Your task to perform on an android device: turn on translation in the chrome app Image 0: 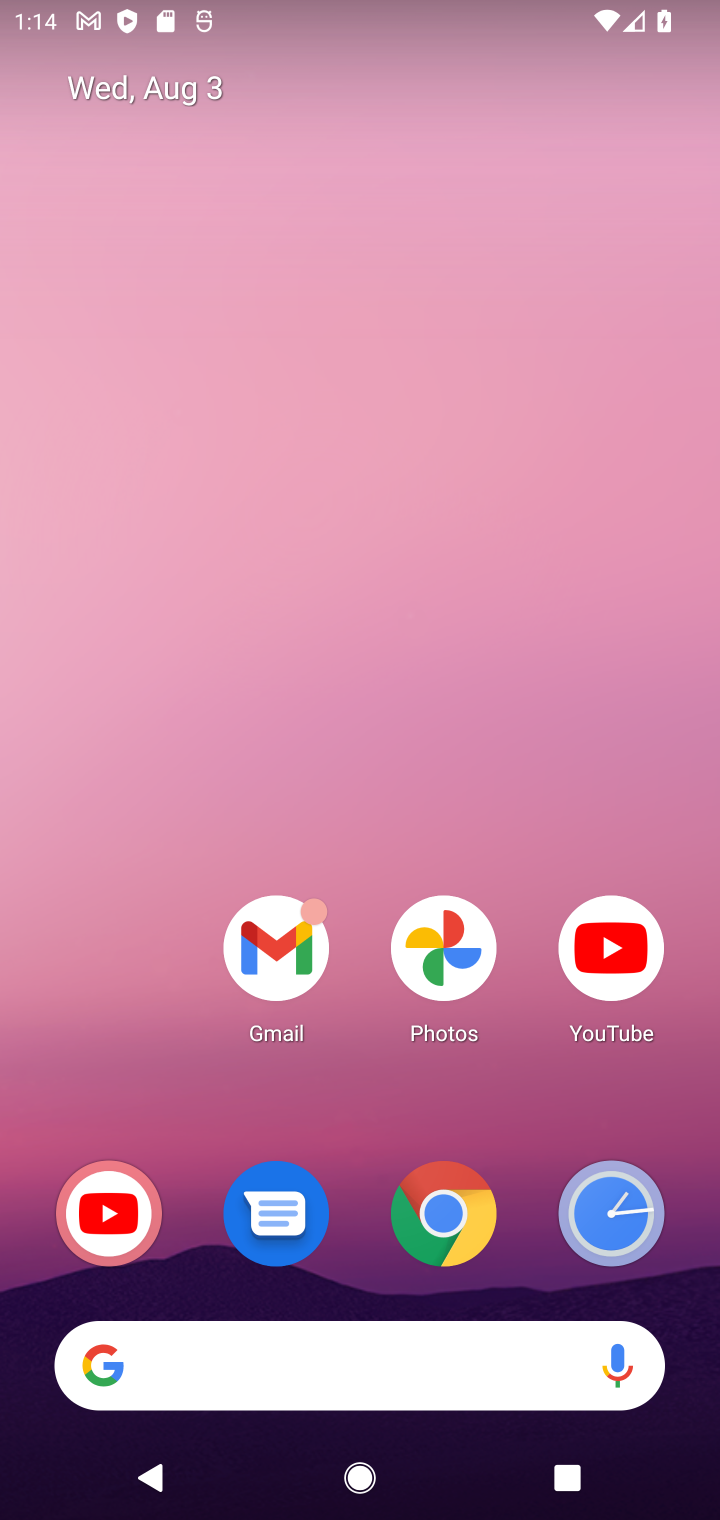
Step 0: drag from (508, 1303) to (718, 860)
Your task to perform on an android device: turn on translation in the chrome app Image 1: 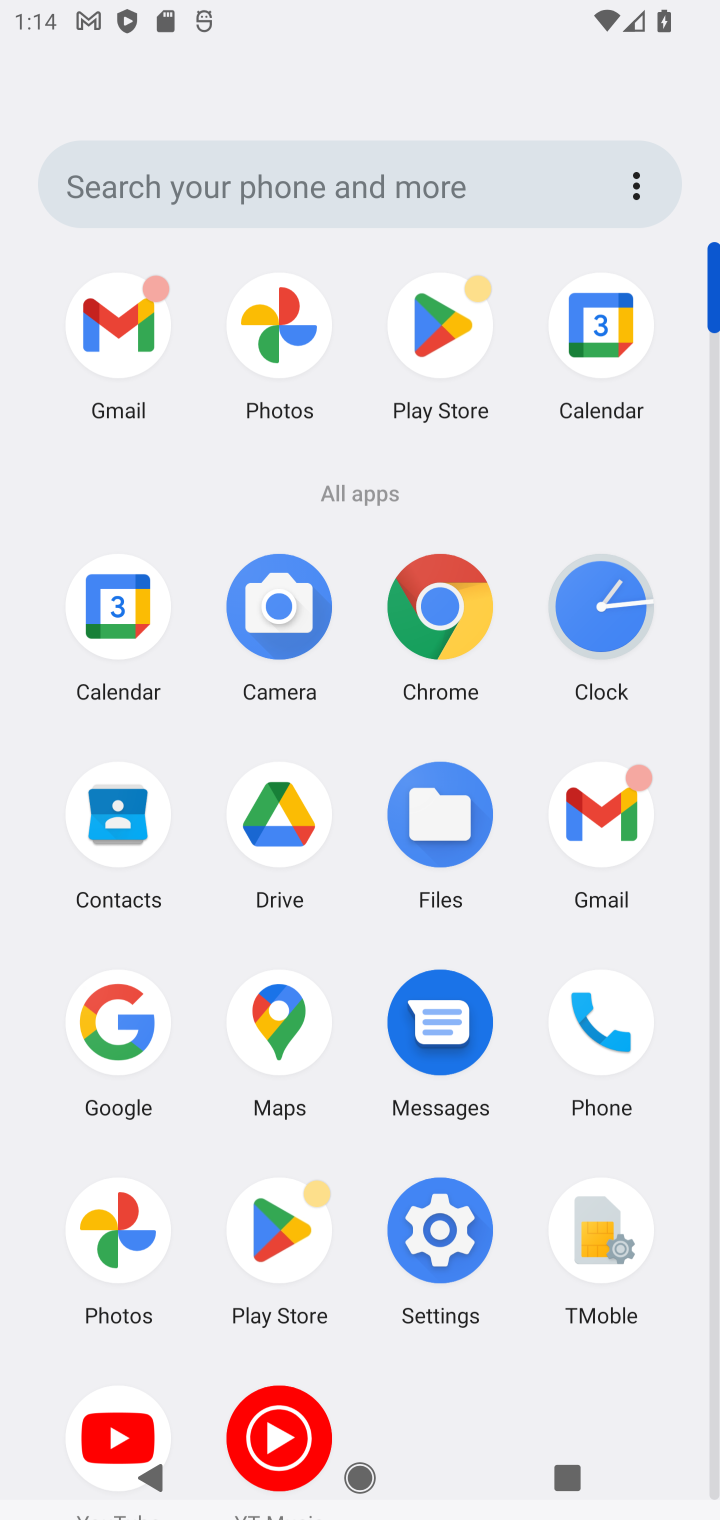
Step 1: click (429, 547)
Your task to perform on an android device: turn on translation in the chrome app Image 2: 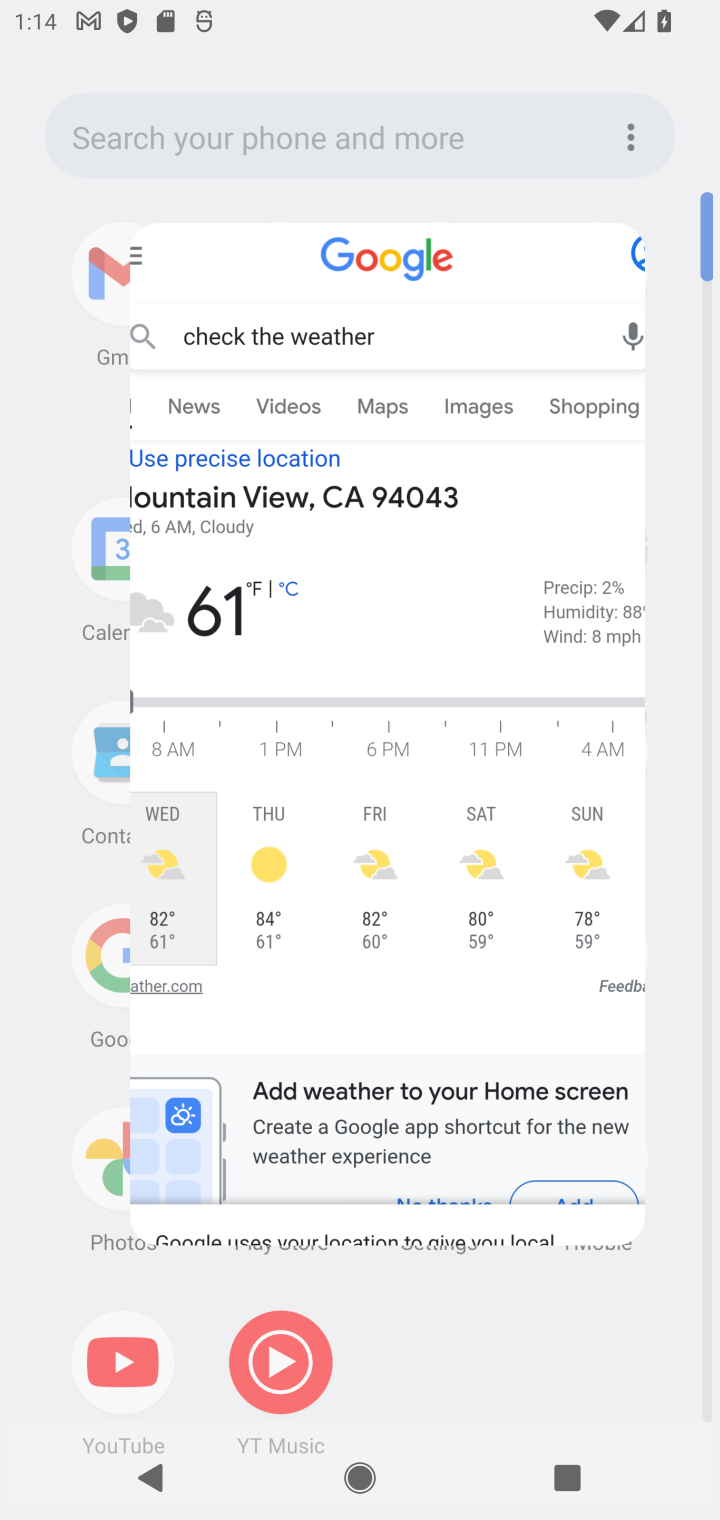
Step 2: click (429, 540)
Your task to perform on an android device: turn on translation in the chrome app Image 3: 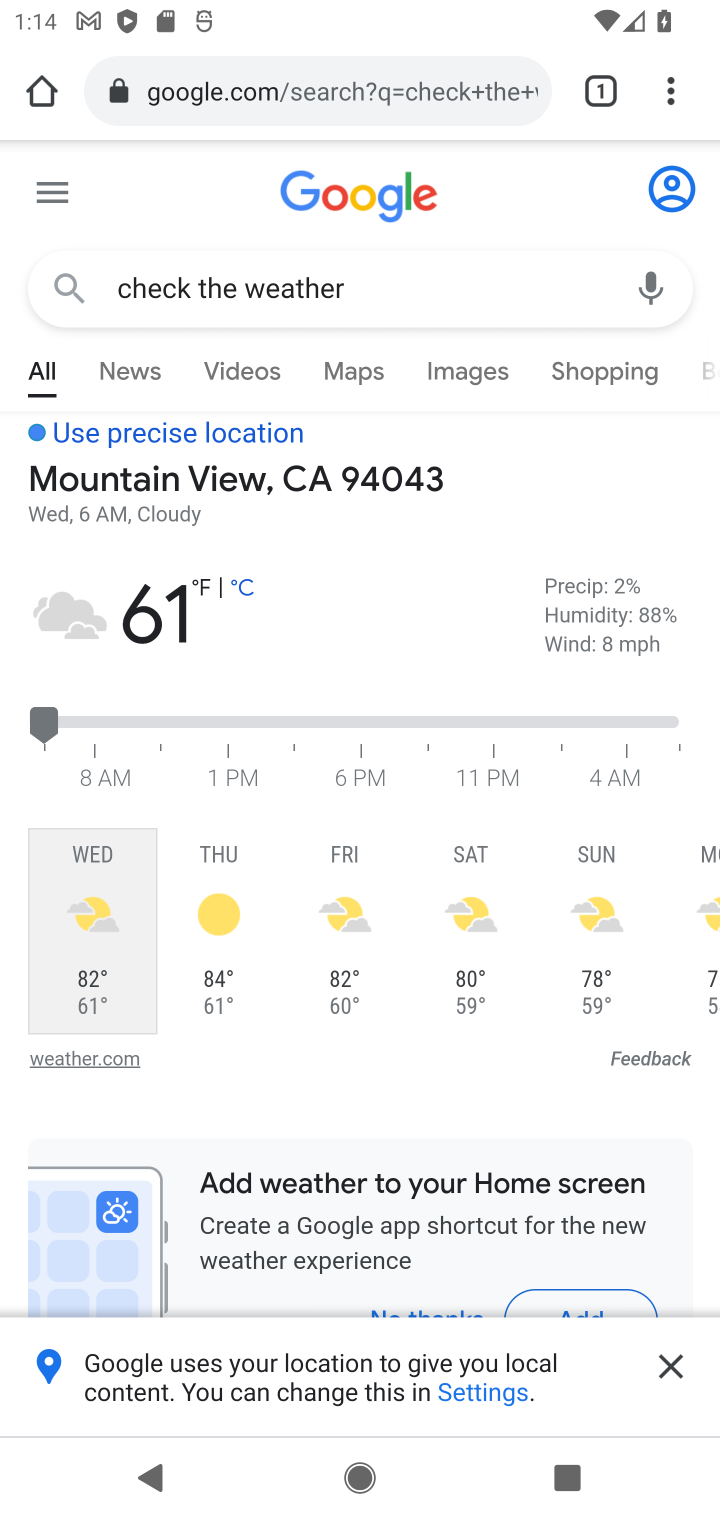
Step 3: drag from (672, 98) to (352, 1165)
Your task to perform on an android device: turn on translation in the chrome app Image 4: 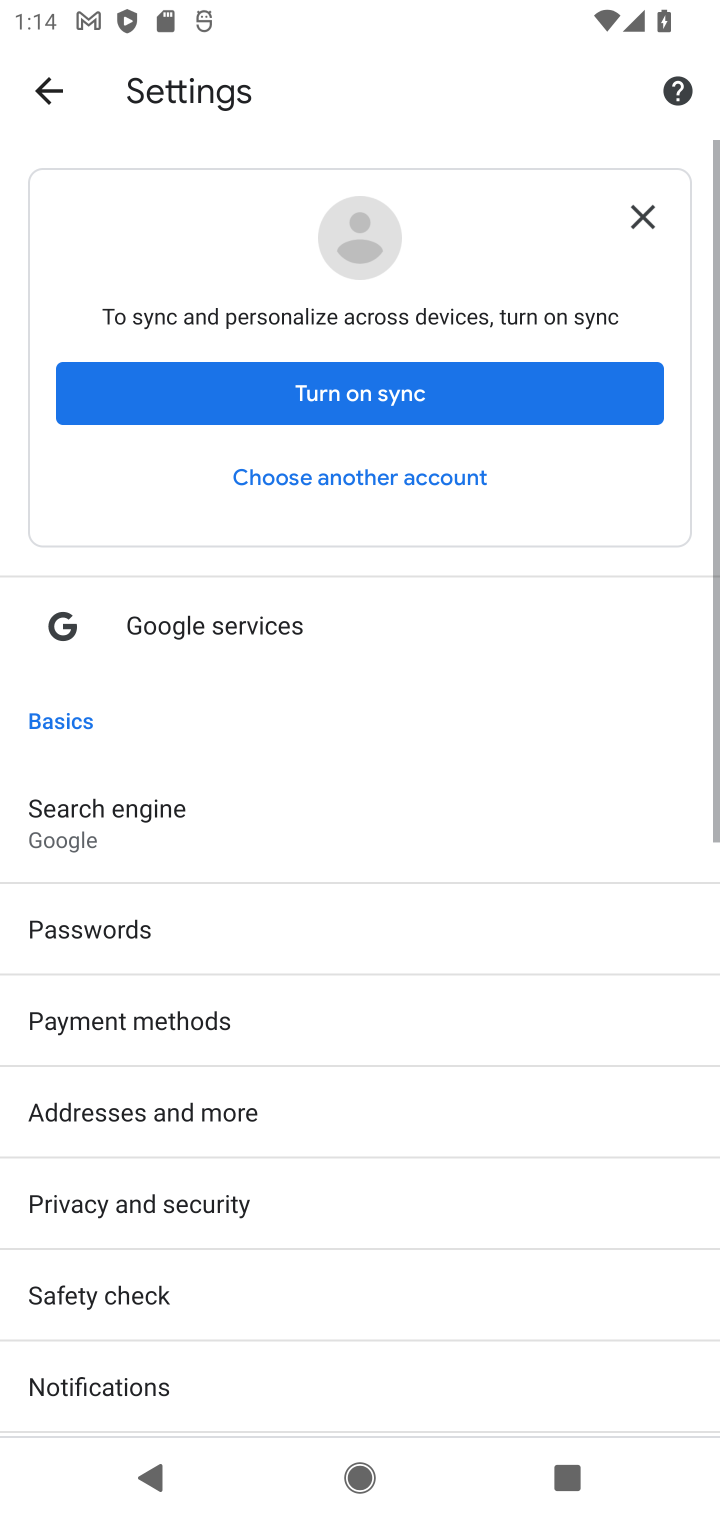
Step 4: drag from (286, 1250) to (366, 13)
Your task to perform on an android device: turn on translation in the chrome app Image 5: 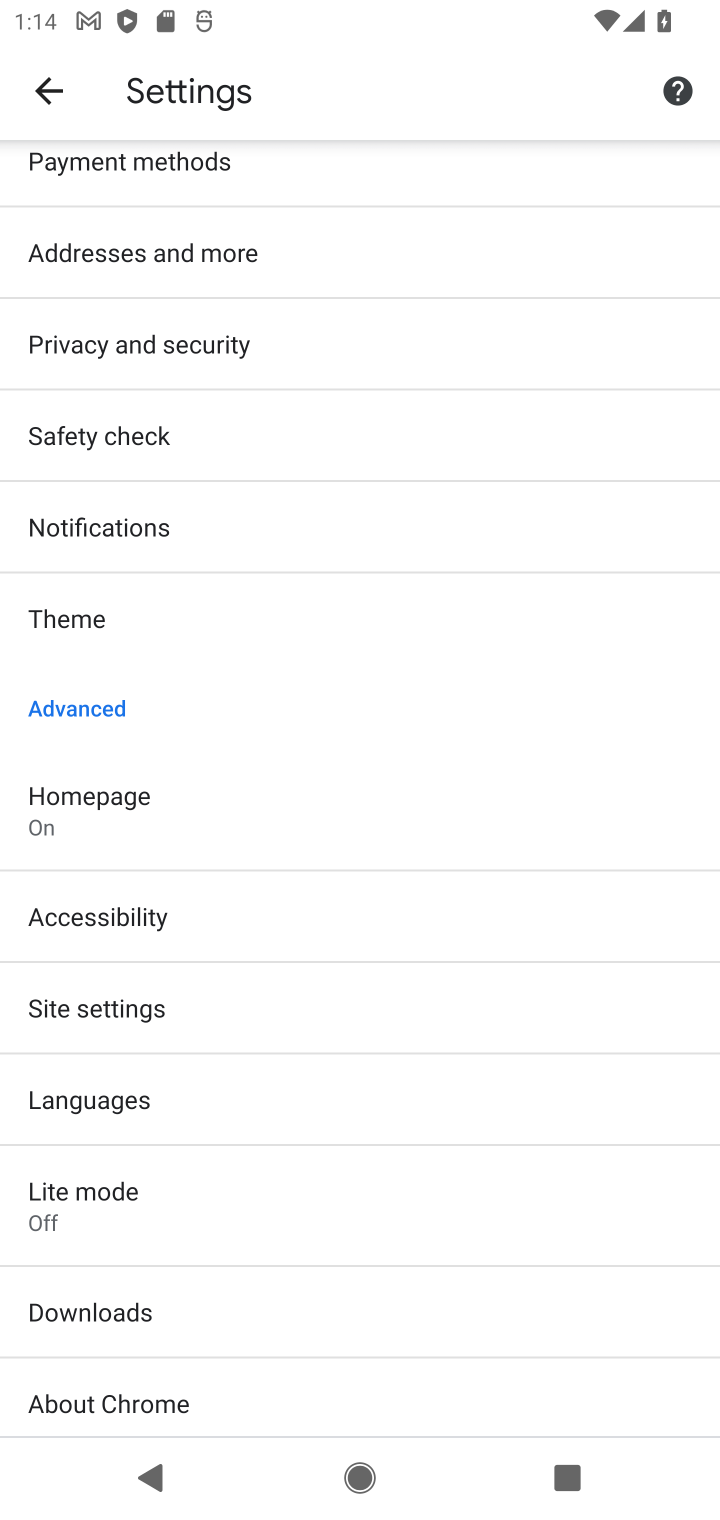
Step 5: click (131, 1026)
Your task to perform on an android device: turn on translation in the chrome app Image 6: 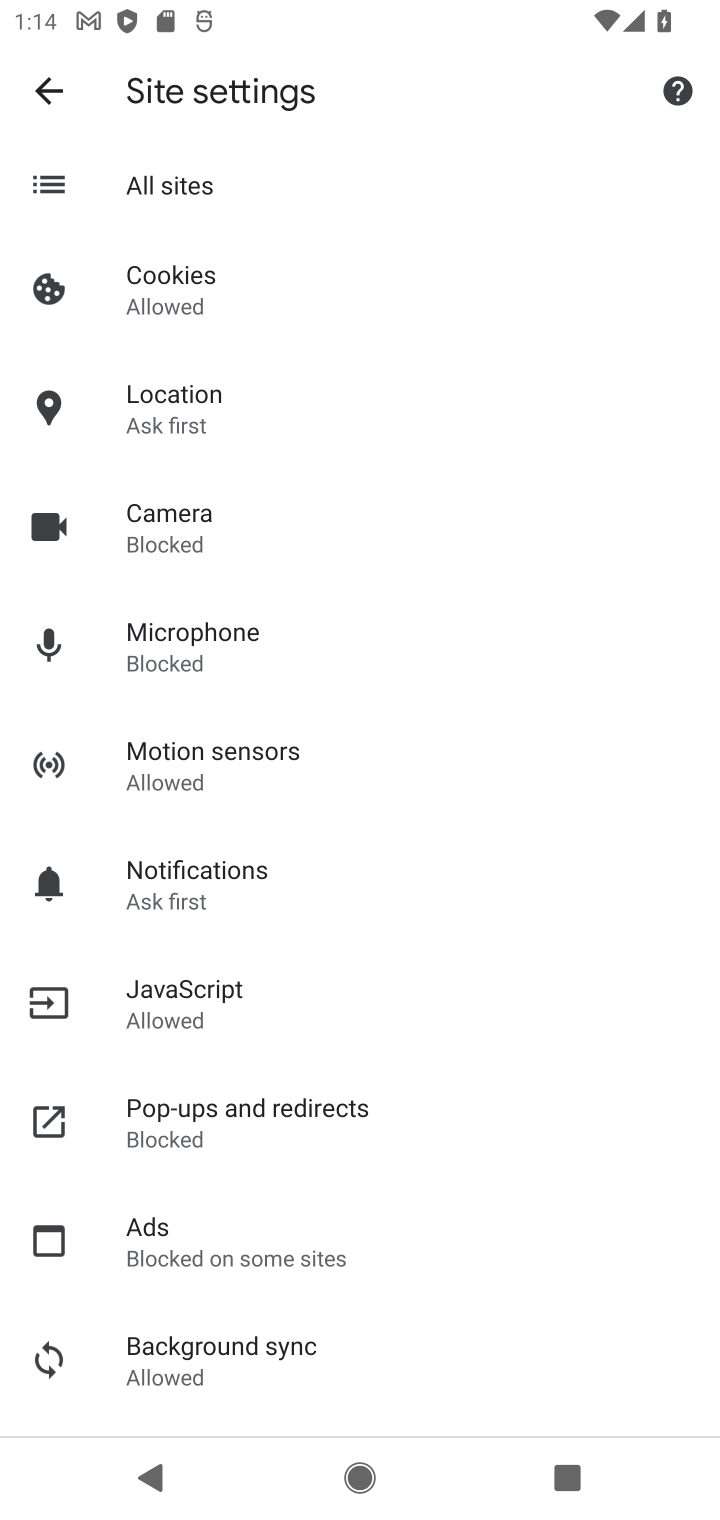
Step 6: press back button
Your task to perform on an android device: turn on translation in the chrome app Image 7: 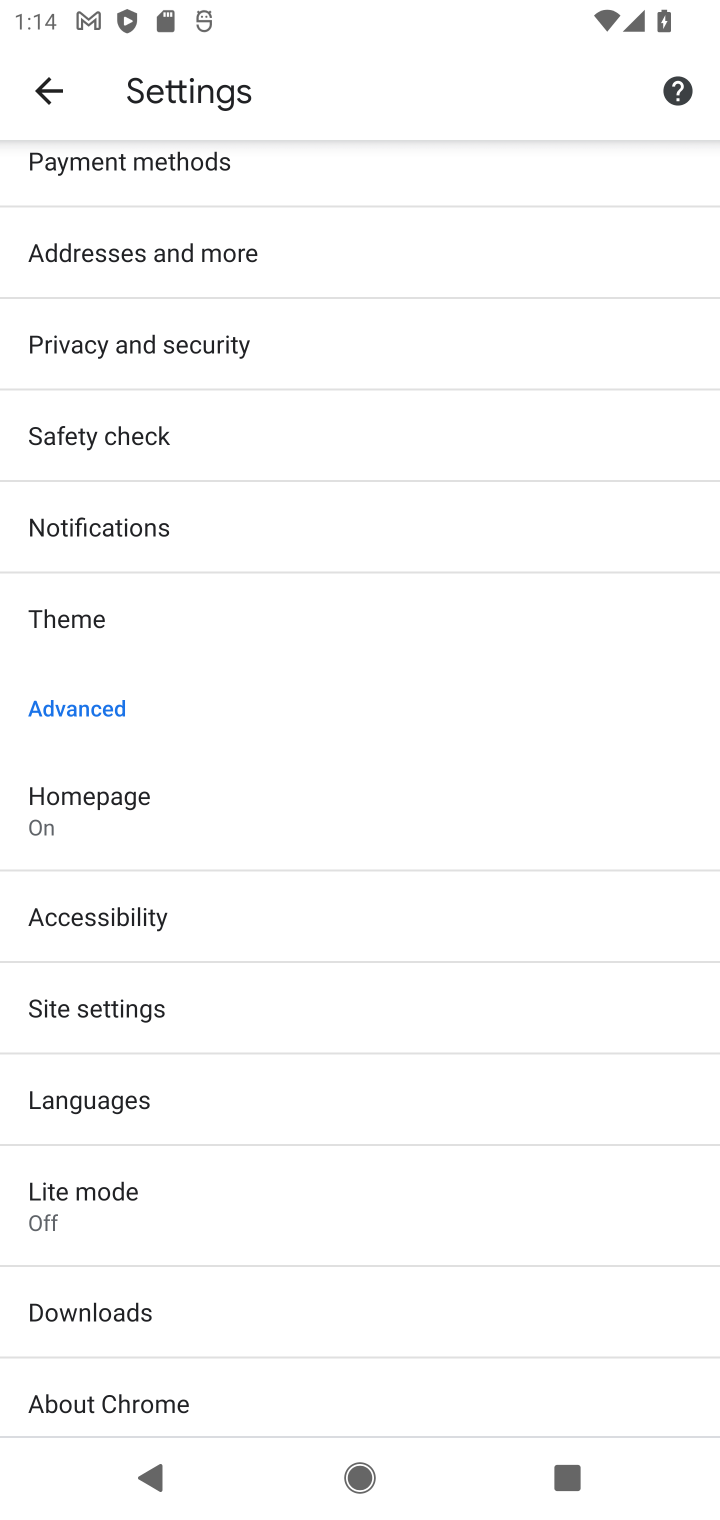
Step 7: click (155, 1118)
Your task to perform on an android device: turn on translation in the chrome app Image 8: 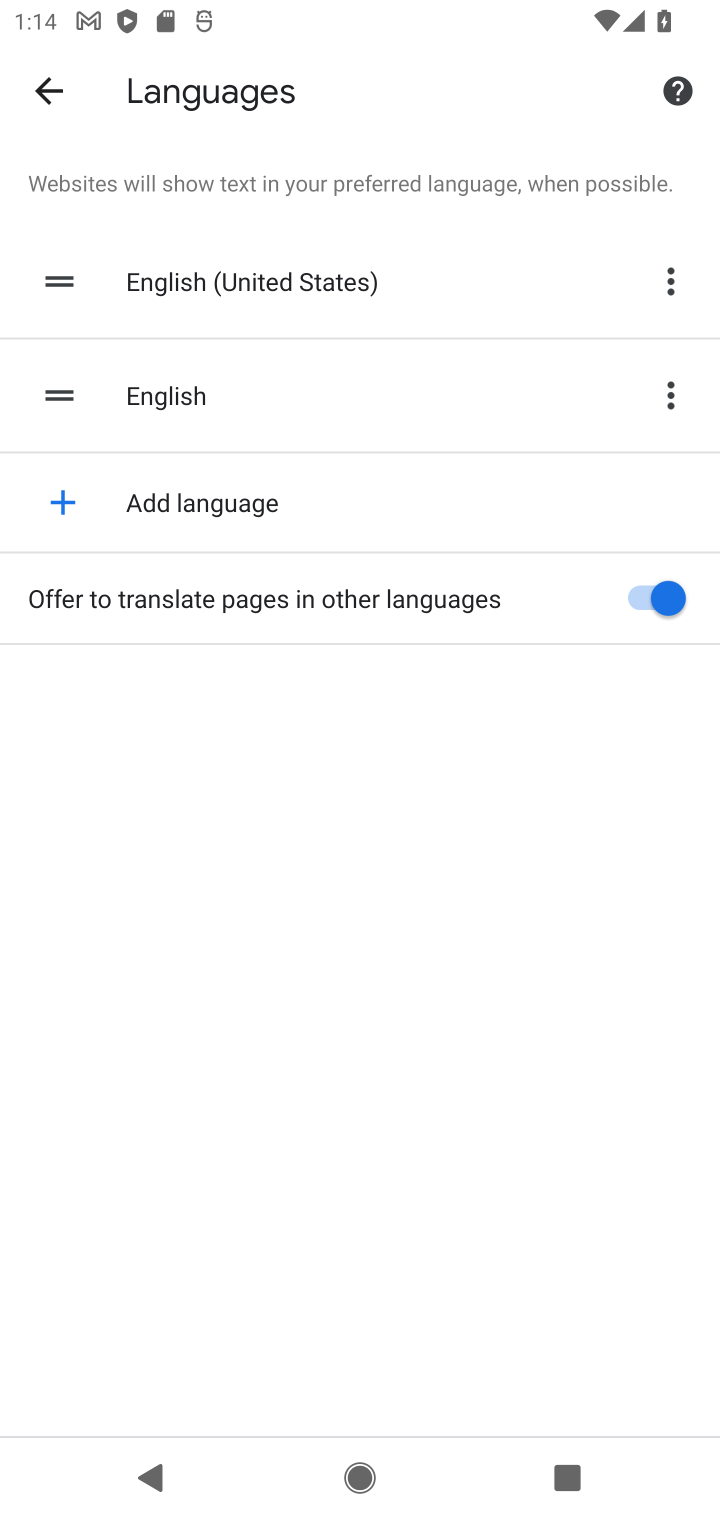
Step 8: click (639, 589)
Your task to perform on an android device: turn on translation in the chrome app Image 9: 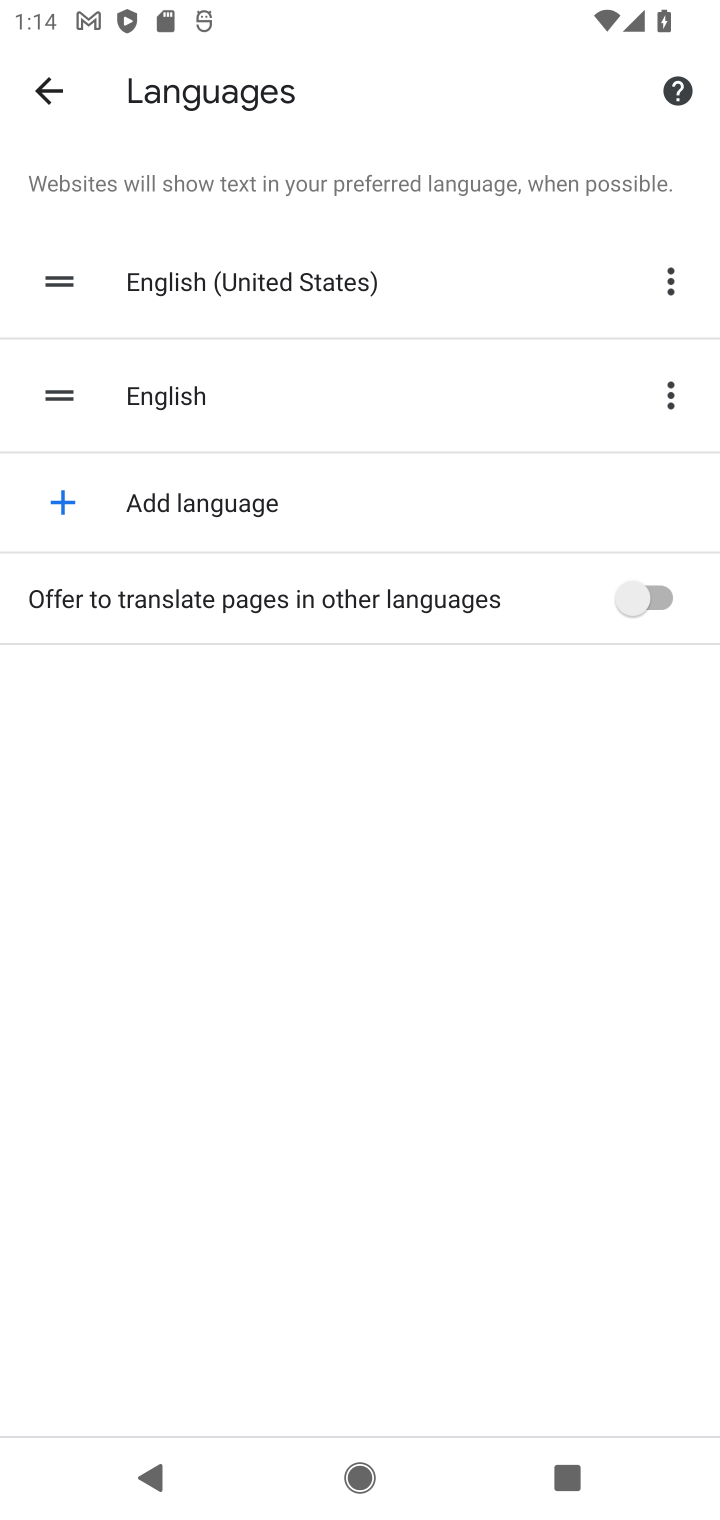
Step 9: click (671, 598)
Your task to perform on an android device: turn on translation in the chrome app Image 10: 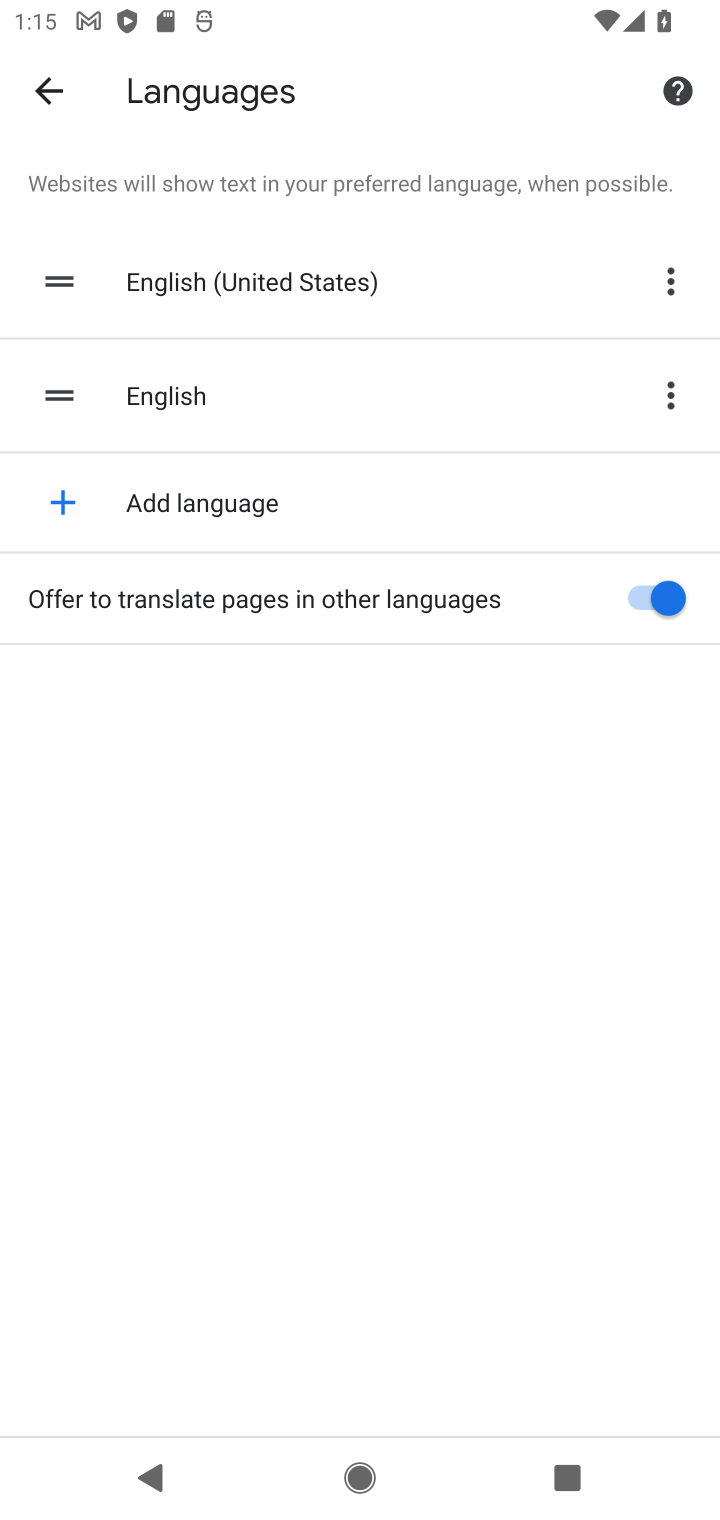
Step 10: task complete